Your task to perform on an android device: toggle priority inbox in the gmail app Image 0: 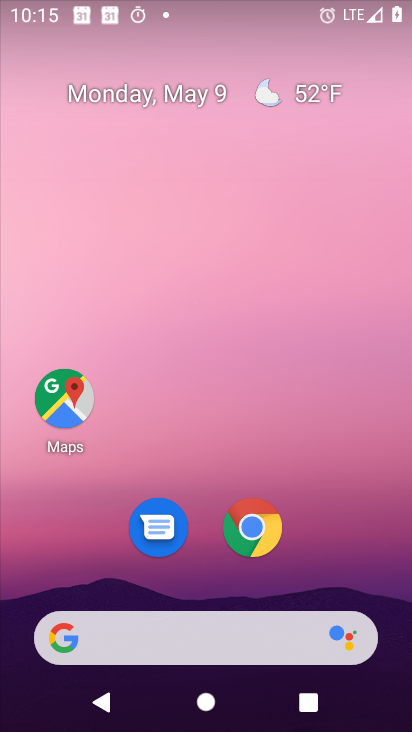
Step 0: drag from (221, 576) to (219, 54)
Your task to perform on an android device: toggle priority inbox in the gmail app Image 1: 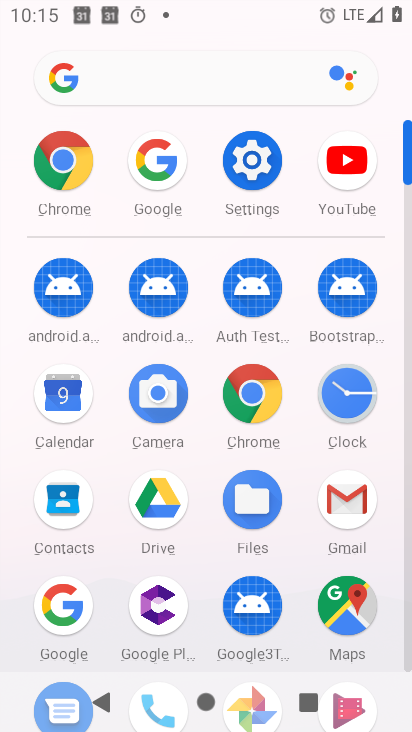
Step 1: click (338, 497)
Your task to perform on an android device: toggle priority inbox in the gmail app Image 2: 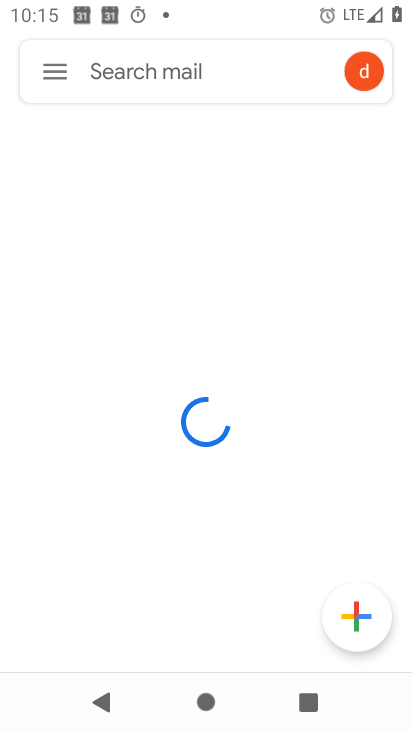
Step 2: click (49, 66)
Your task to perform on an android device: toggle priority inbox in the gmail app Image 3: 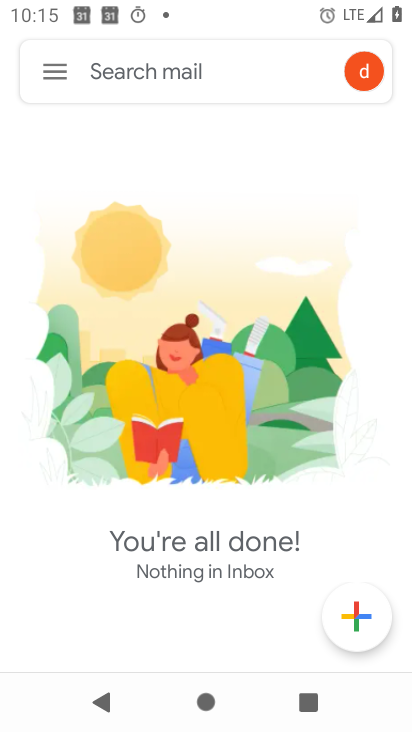
Step 3: click (51, 71)
Your task to perform on an android device: toggle priority inbox in the gmail app Image 4: 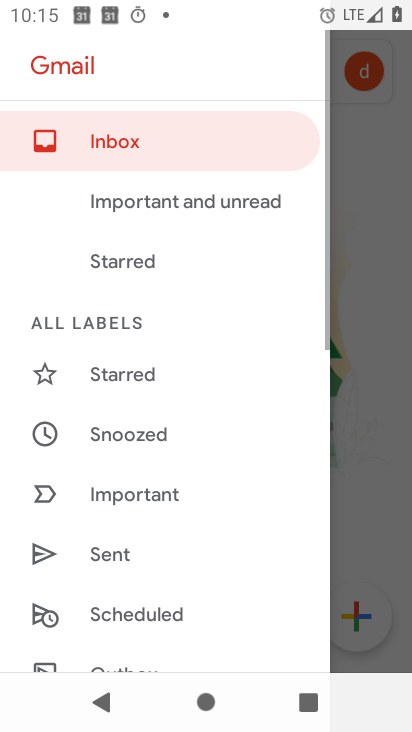
Step 4: drag from (175, 606) to (196, 84)
Your task to perform on an android device: toggle priority inbox in the gmail app Image 5: 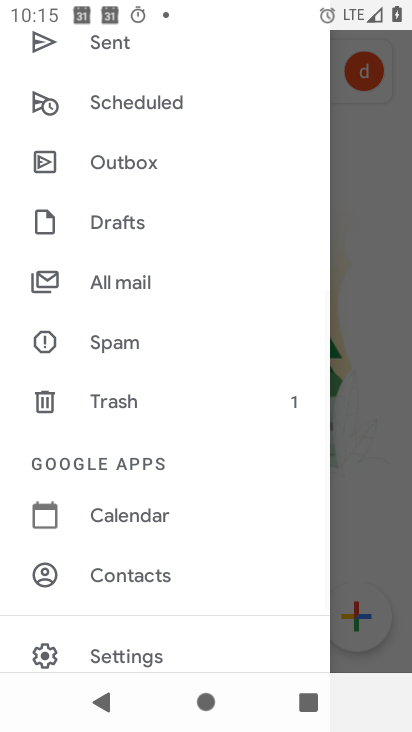
Step 5: drag from (166, 609) to (166, 182)
Your task to perform on an android device: toggle priority inbox in the gmail app Image 6: 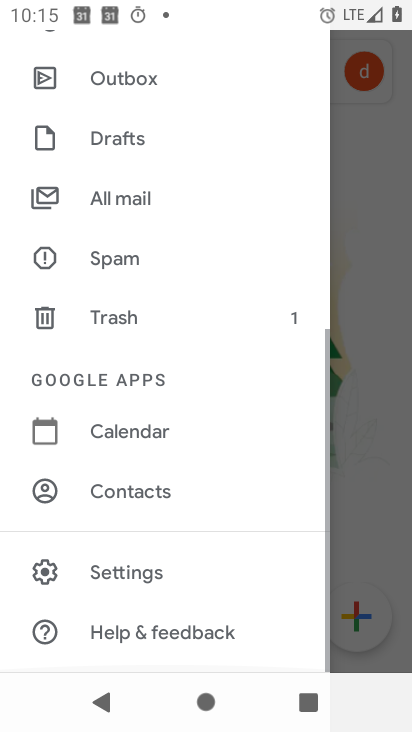
Step 6: click (146, 576)
Your task to perform on an android device: toggle priority inbox in the gmail app Image 7: 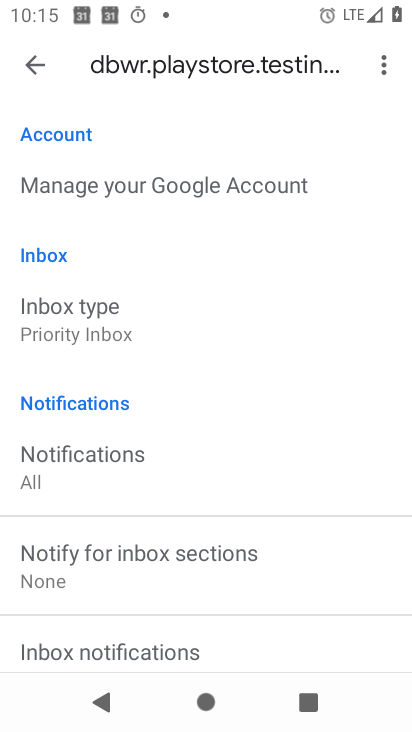
Step 7: click (78, 316)
Your task to perform on an android device: toggle priority inbox in the gmail app Image 8: 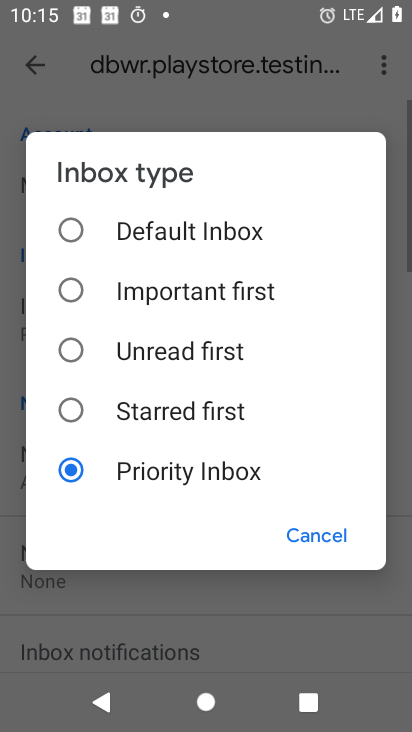
Step 8: click (68, 232)
Your task to perform on an android device: toggle priority inbox in the gmail app Image 9: 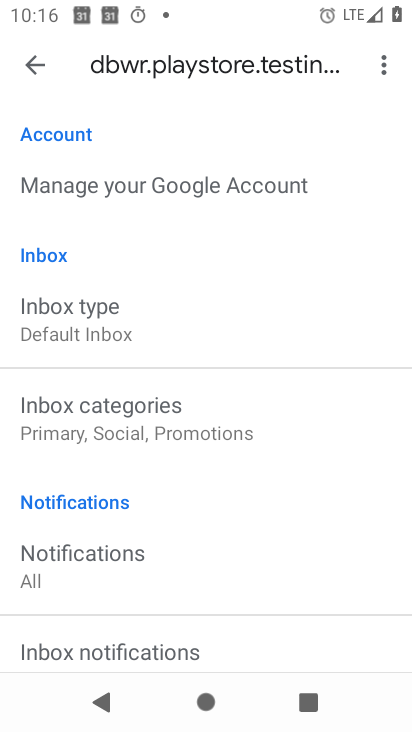
Step 9: task complete